Your task to perform on an android device: Open settings Image 0: 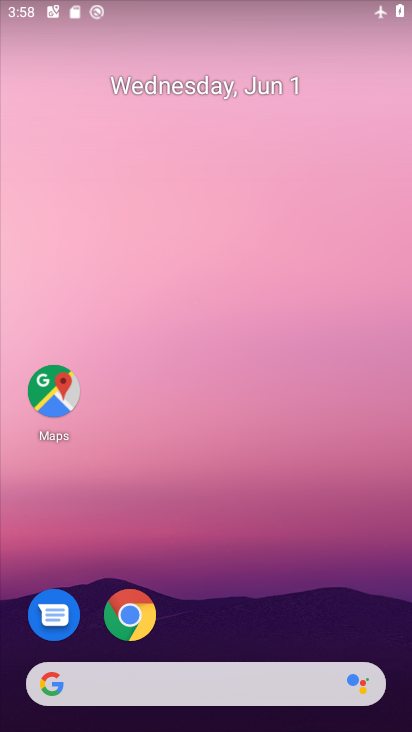
Step 0: drag from (333, 560) to (311, 76)
Your task to perform on an android device: Open settings Image 1: 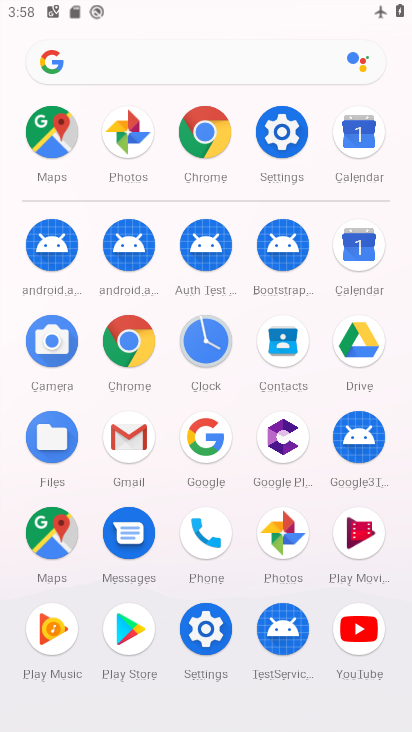
Step 1: click (275, 146)
Your task to perform on an android device: Open settings Image 2: 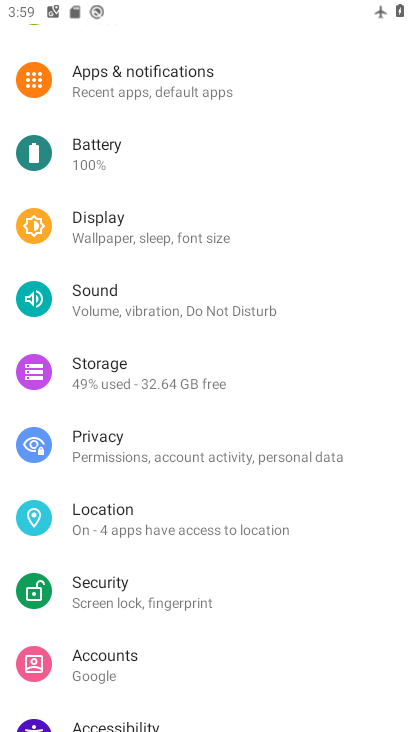
Step 2: task complete